Your task to perform on an android device: find which apps use the phone's location Image 0: 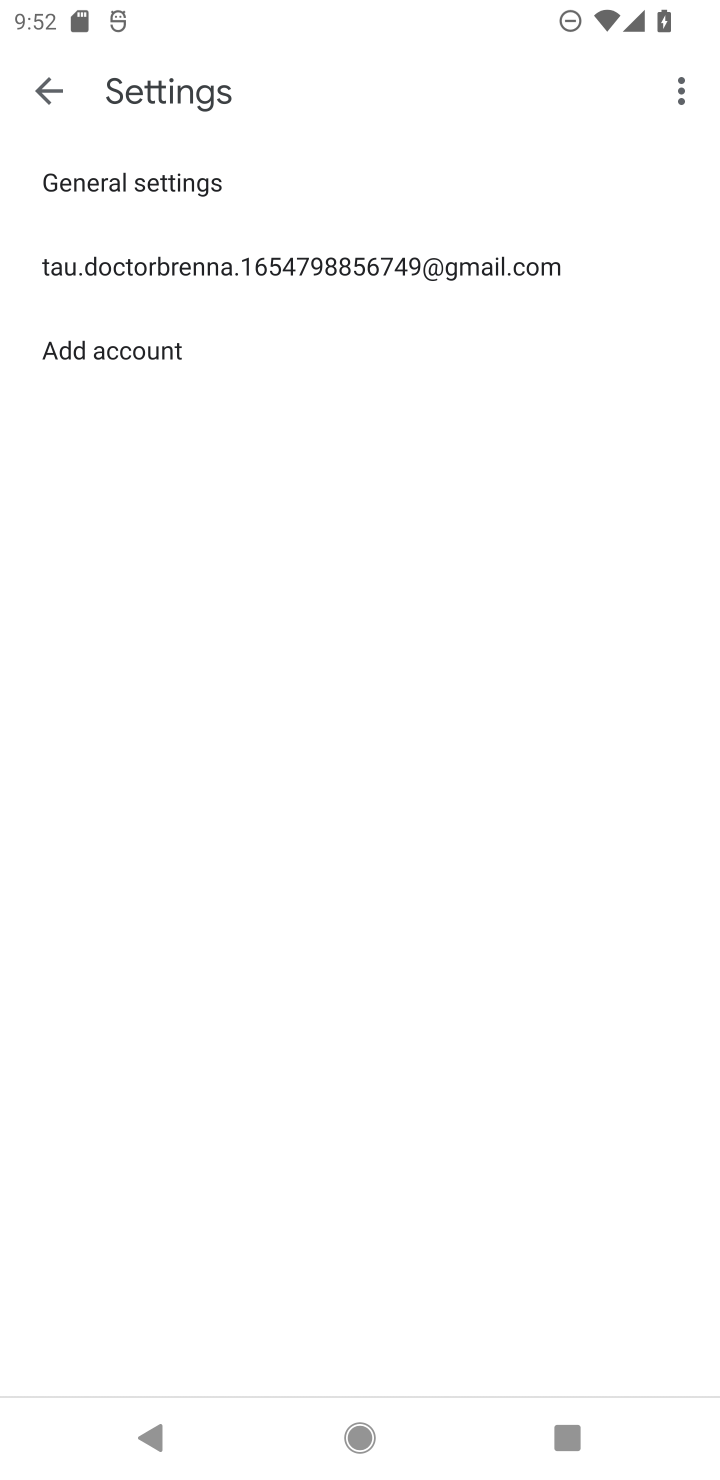
Step 0: click (39, 94)
Your task to perform on an android device: find which apps use the phone's location Image 1: 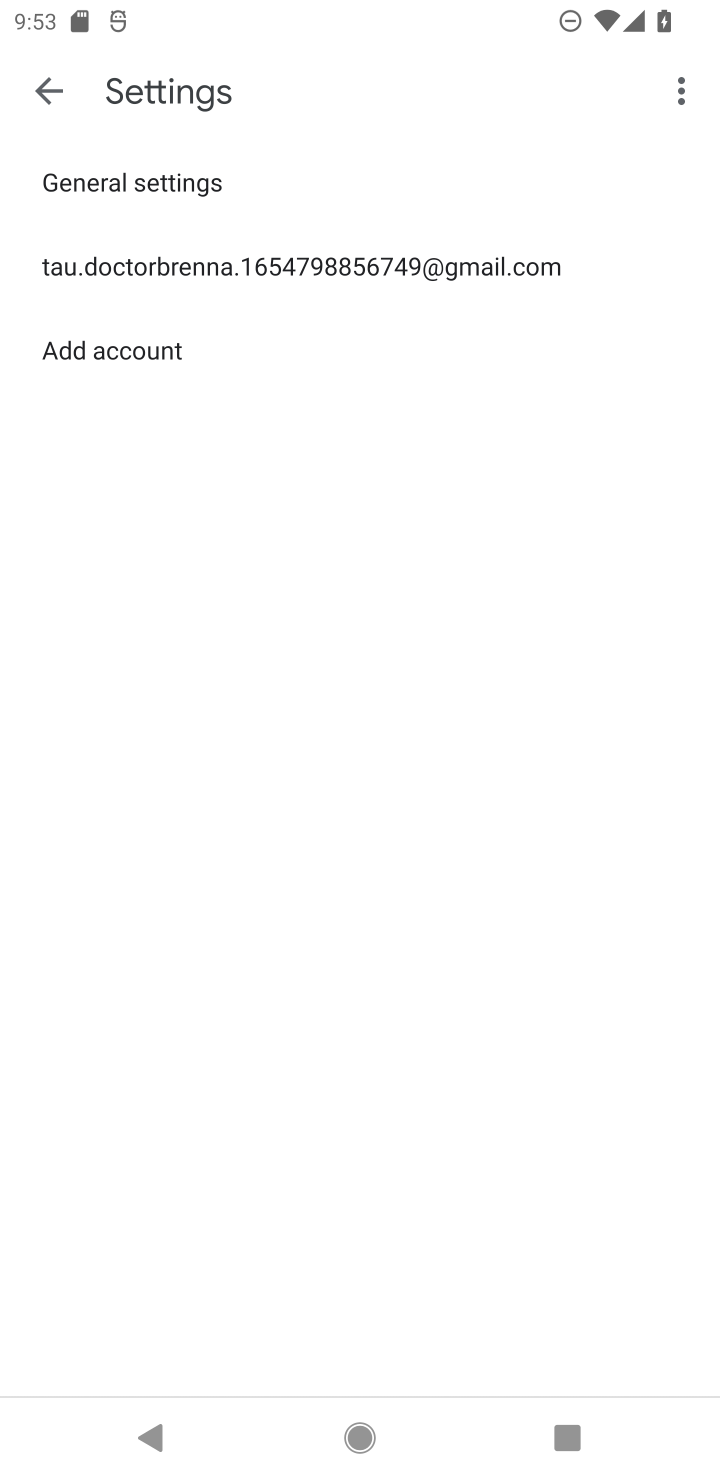
Step 1: click (51, 95)
Your task to perform on an android device: find which apps use the phone's location Image 2: 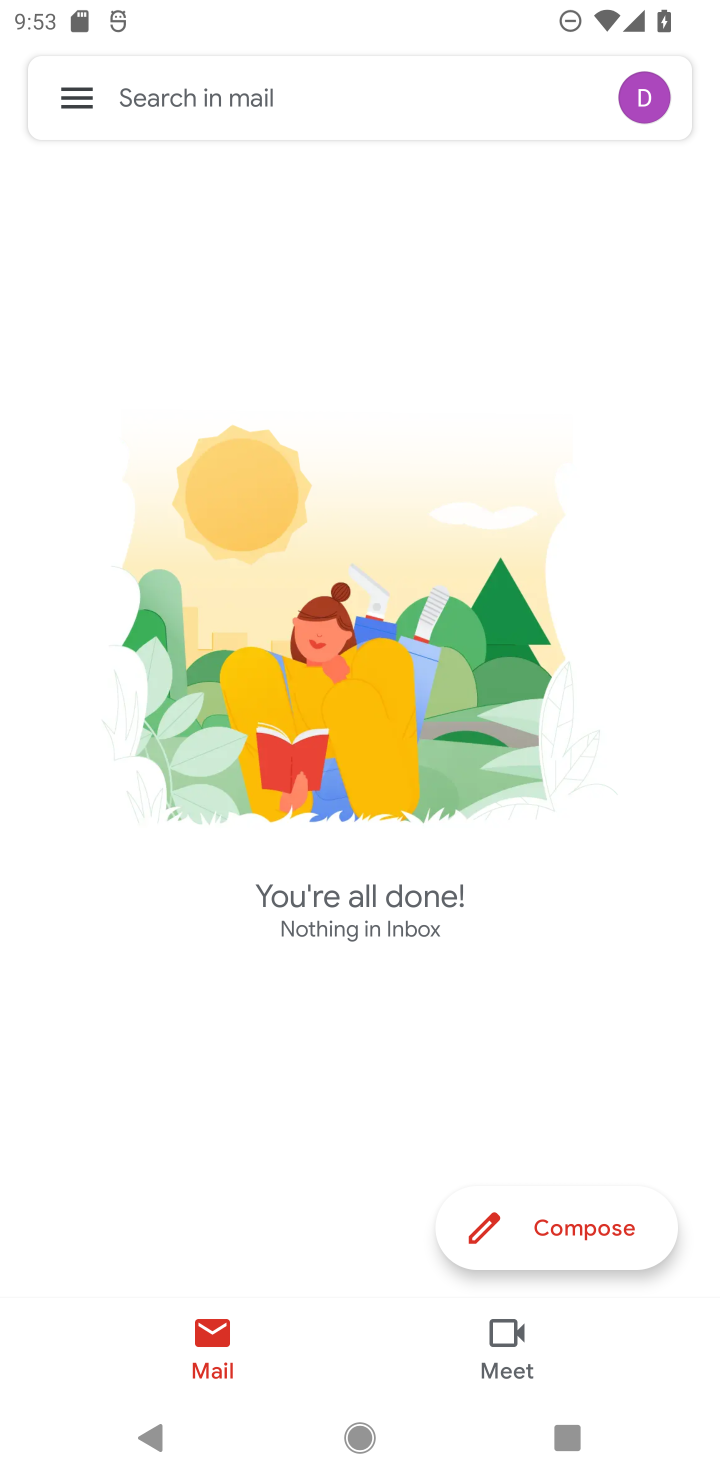
Step 2: press home button
Your task to perform on an android device: find which apps use the phone's location Image 3: 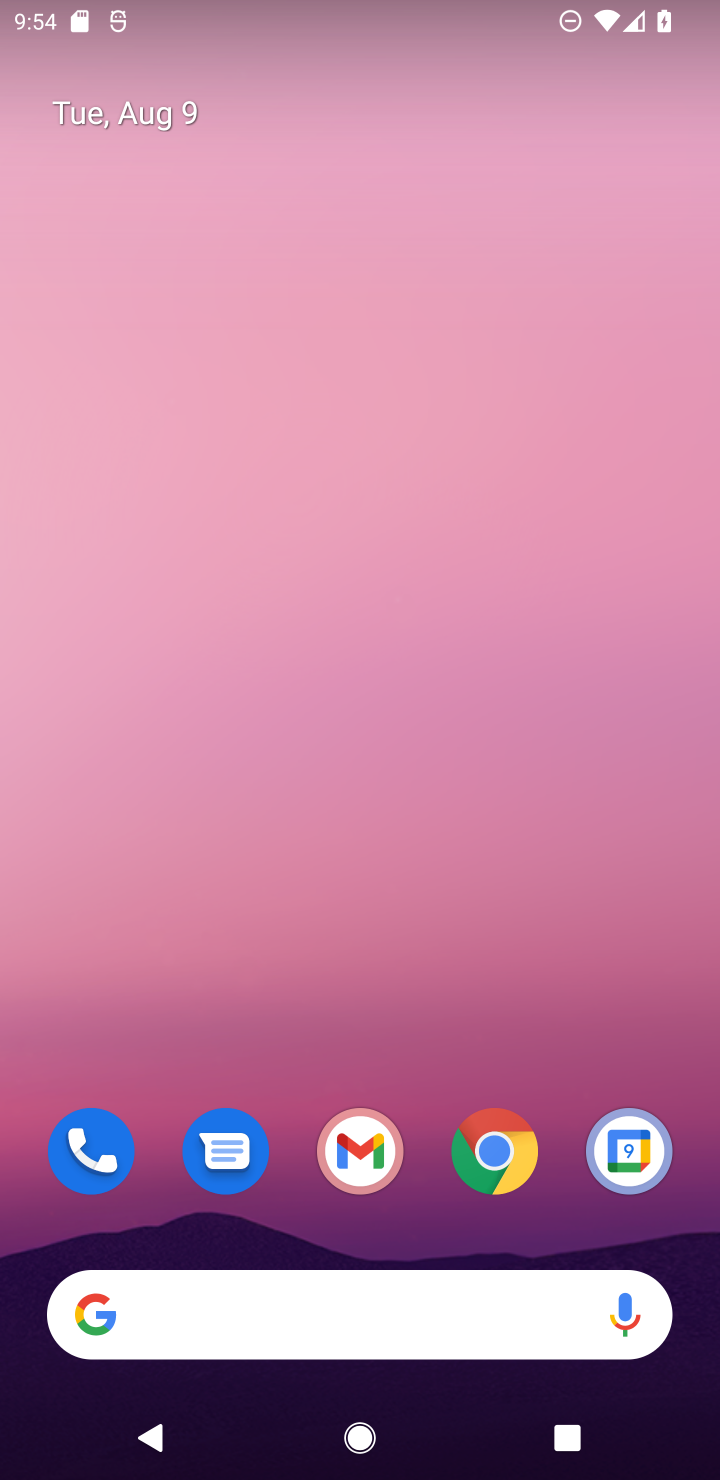
Step 3: drag from (278, 1243) to (360, 278)
Your task to perform on an android device: find which apps use the phone's location Image 4: 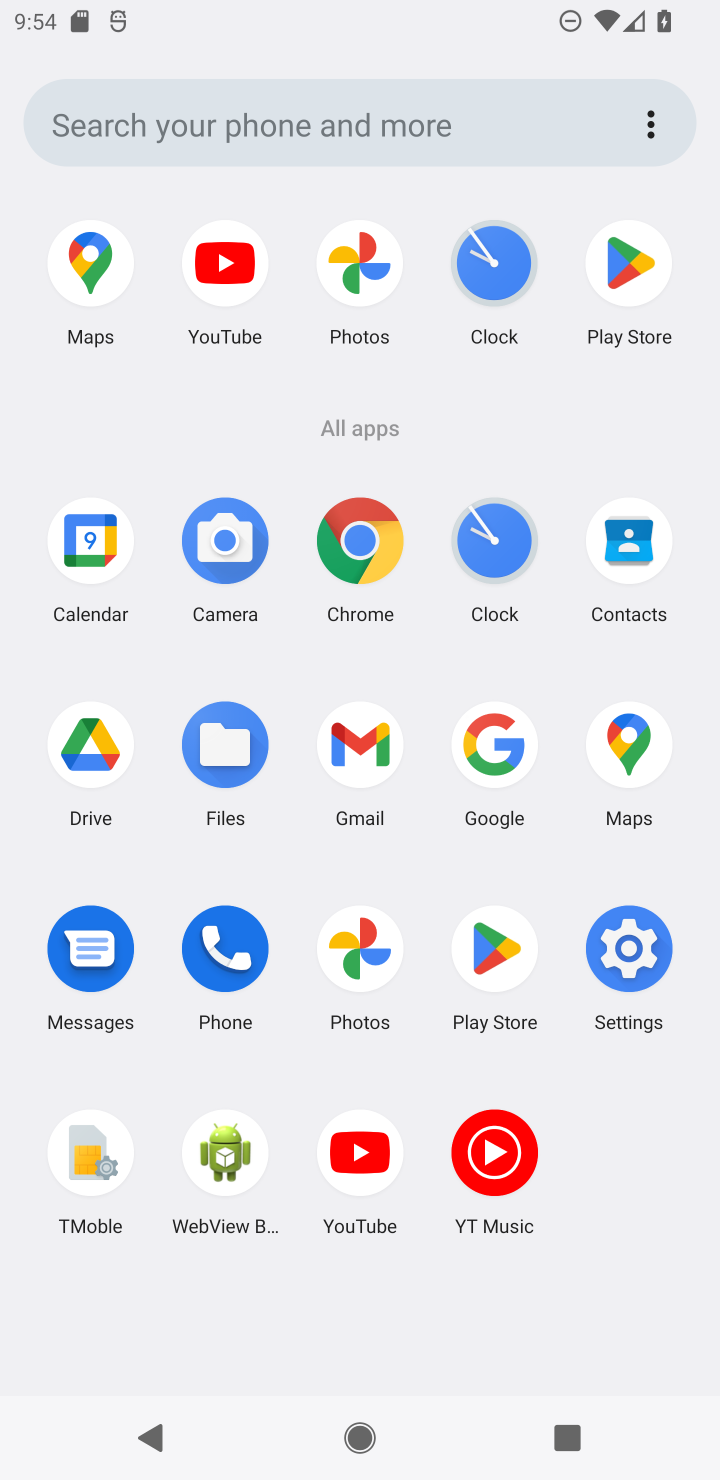
Step 4: click (646, 948)
Your task to perform on an android device: find which apps use the phone's location Image 5: 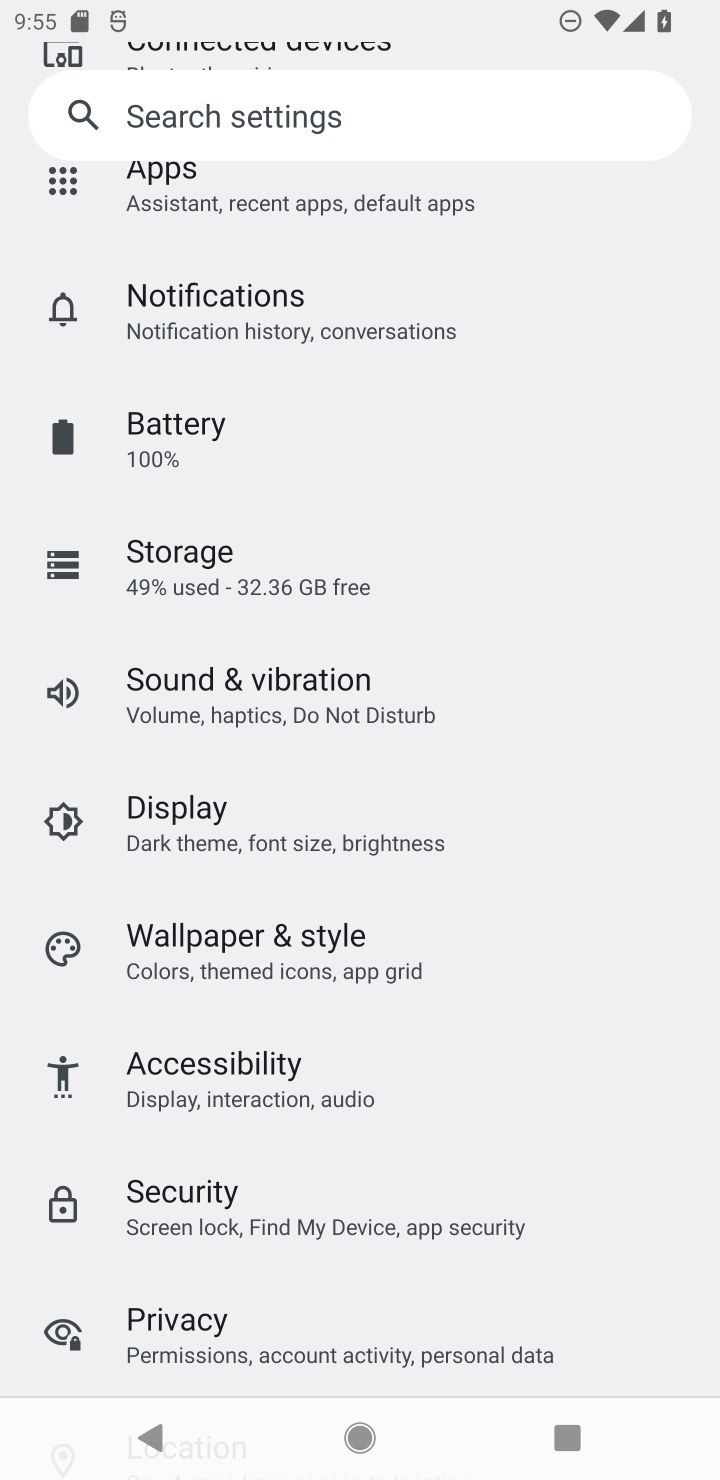
Step 5: drag from (469, 990) to (426, 517)
Your task to perform on an android device: find which apps use the phone's location Image 6: 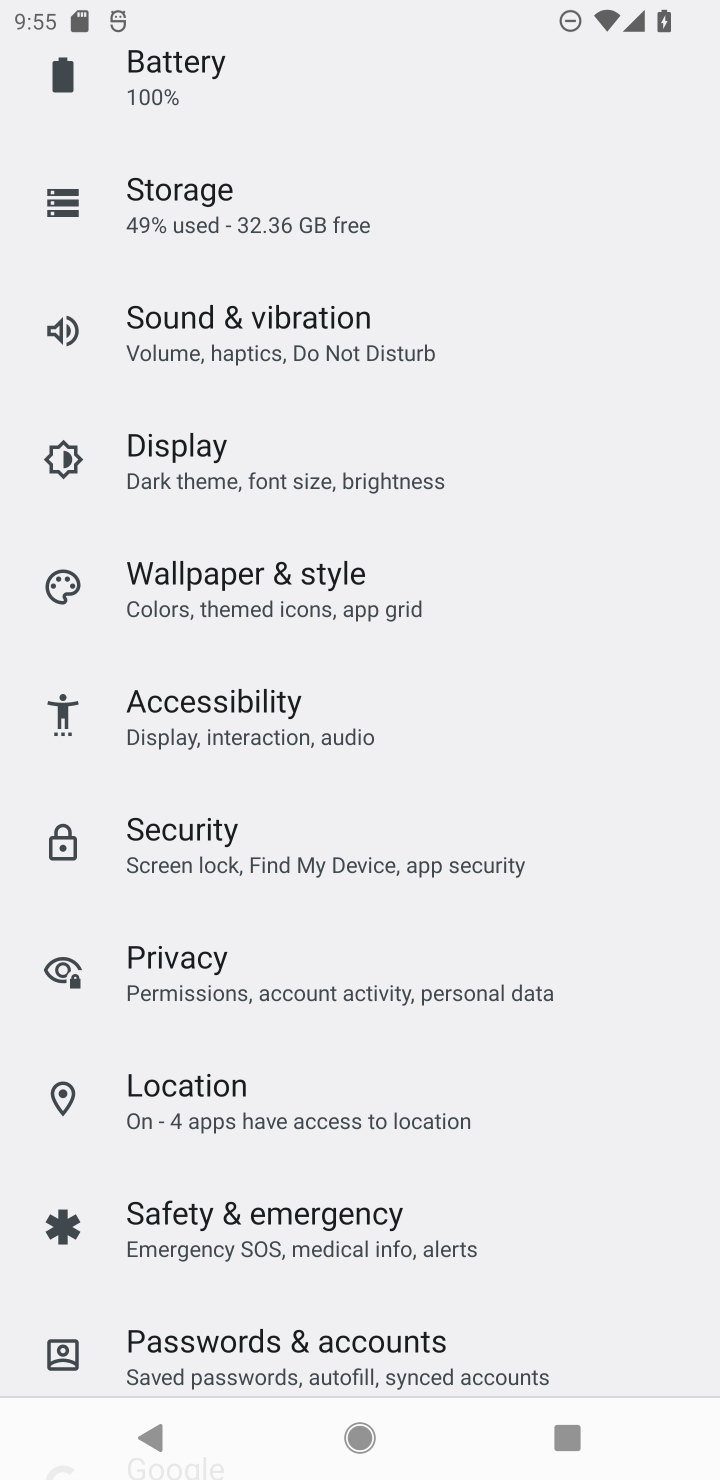
Step 6: click (248, 1086)
Your task to perform on an android device: find which apps use the phone's location Image 7: 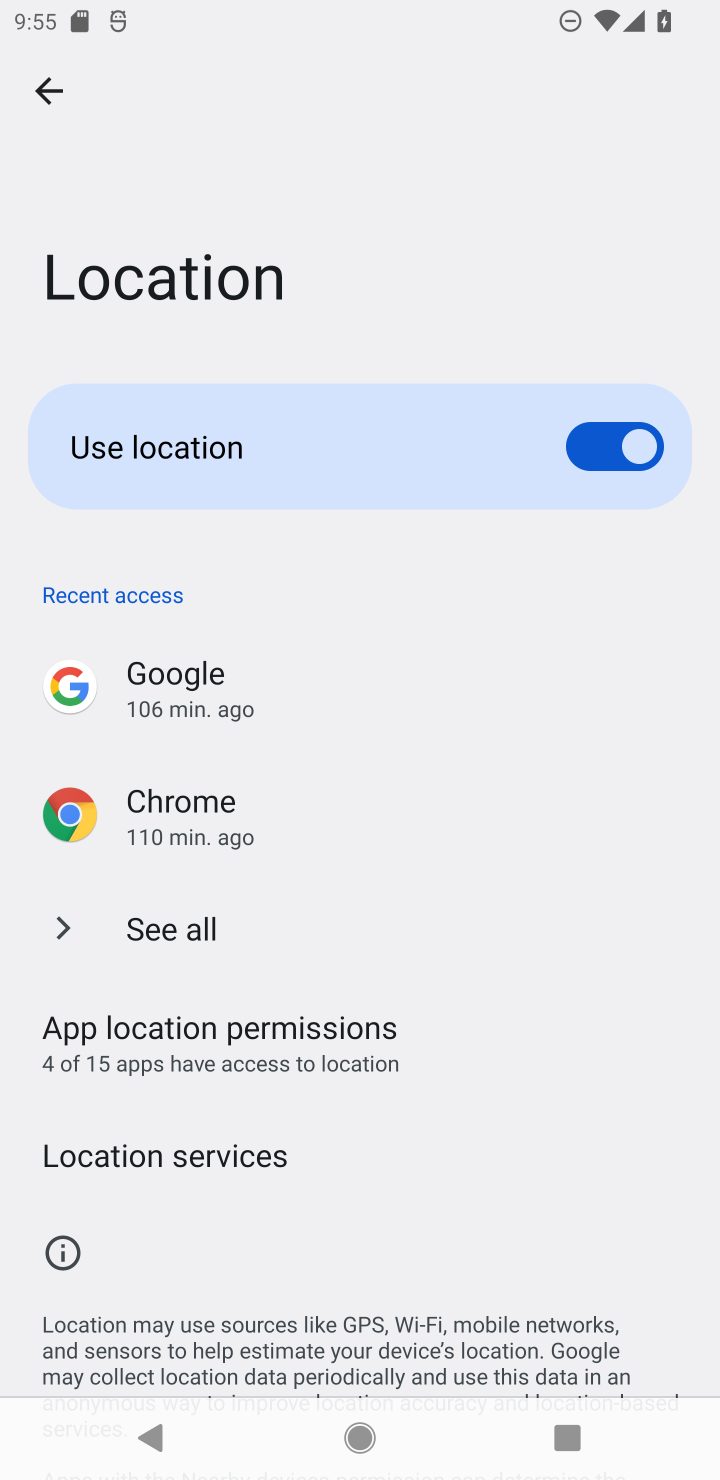
Step 7: click (266, 1034)
Your task to perform on an android device: find which apps use the phone's location Image 8: 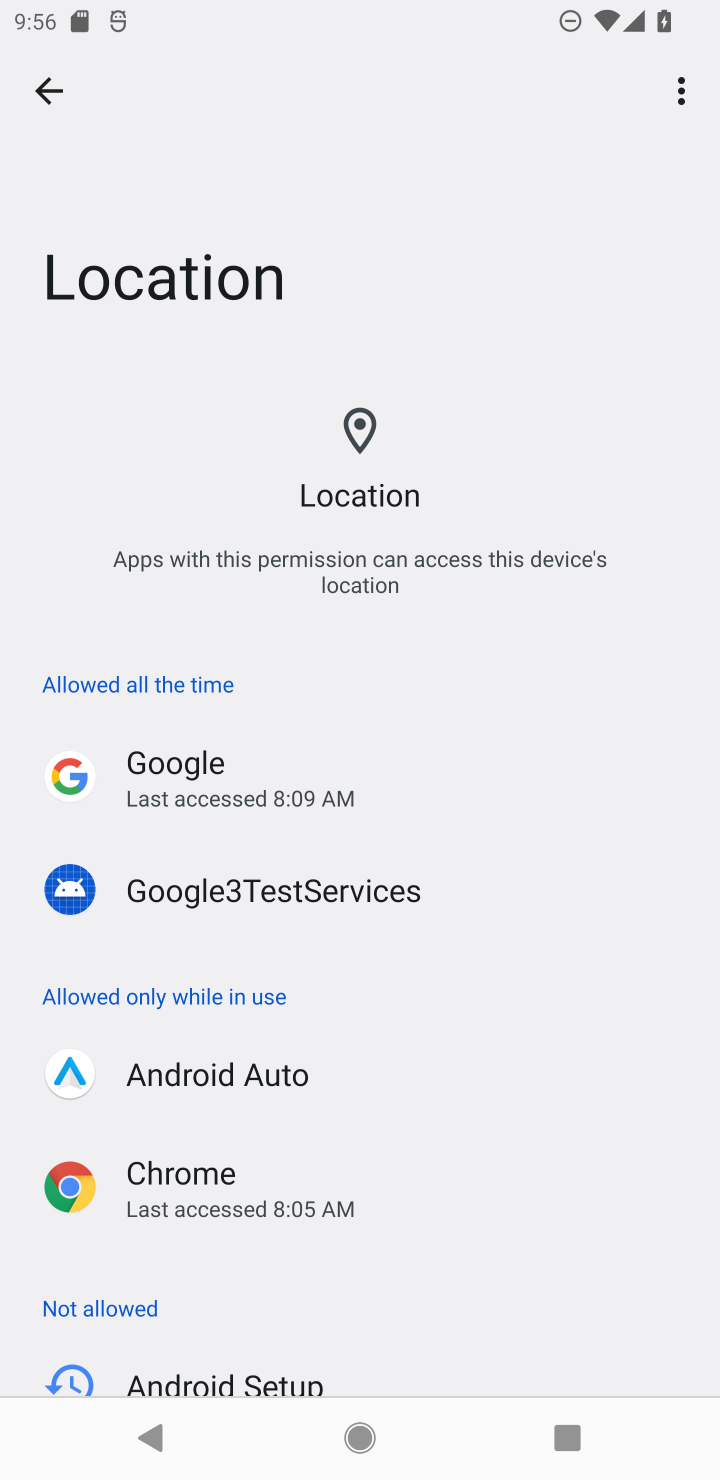
Step 8: task complete